Your task to perform on an android device: Open the calendar app, open the side menu, and click the "Day" option Image 0: 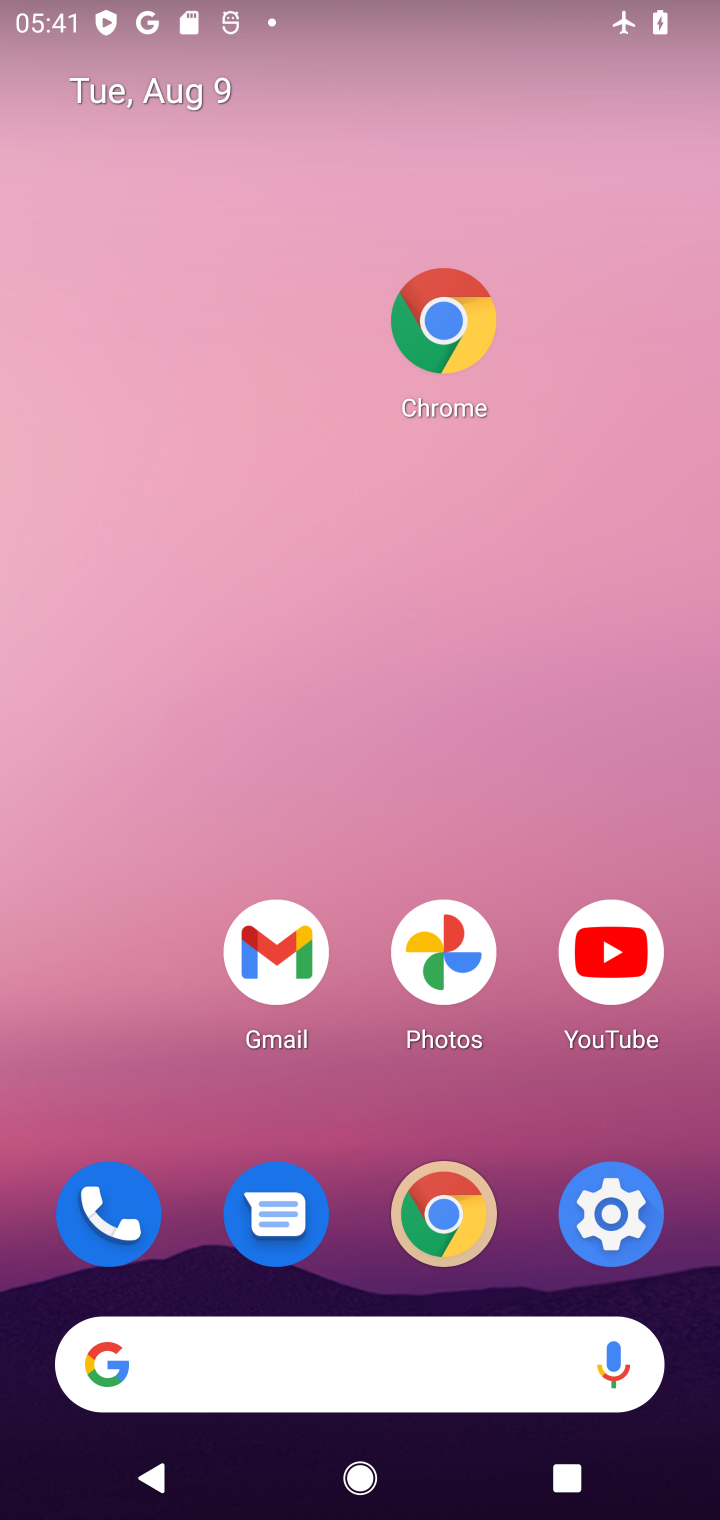
Step 0: drag from (501, 1269) to (326, 432)
Your task to perform on an android device: Open the calendar app, open the side menu, and click the "Day" option Image 1: 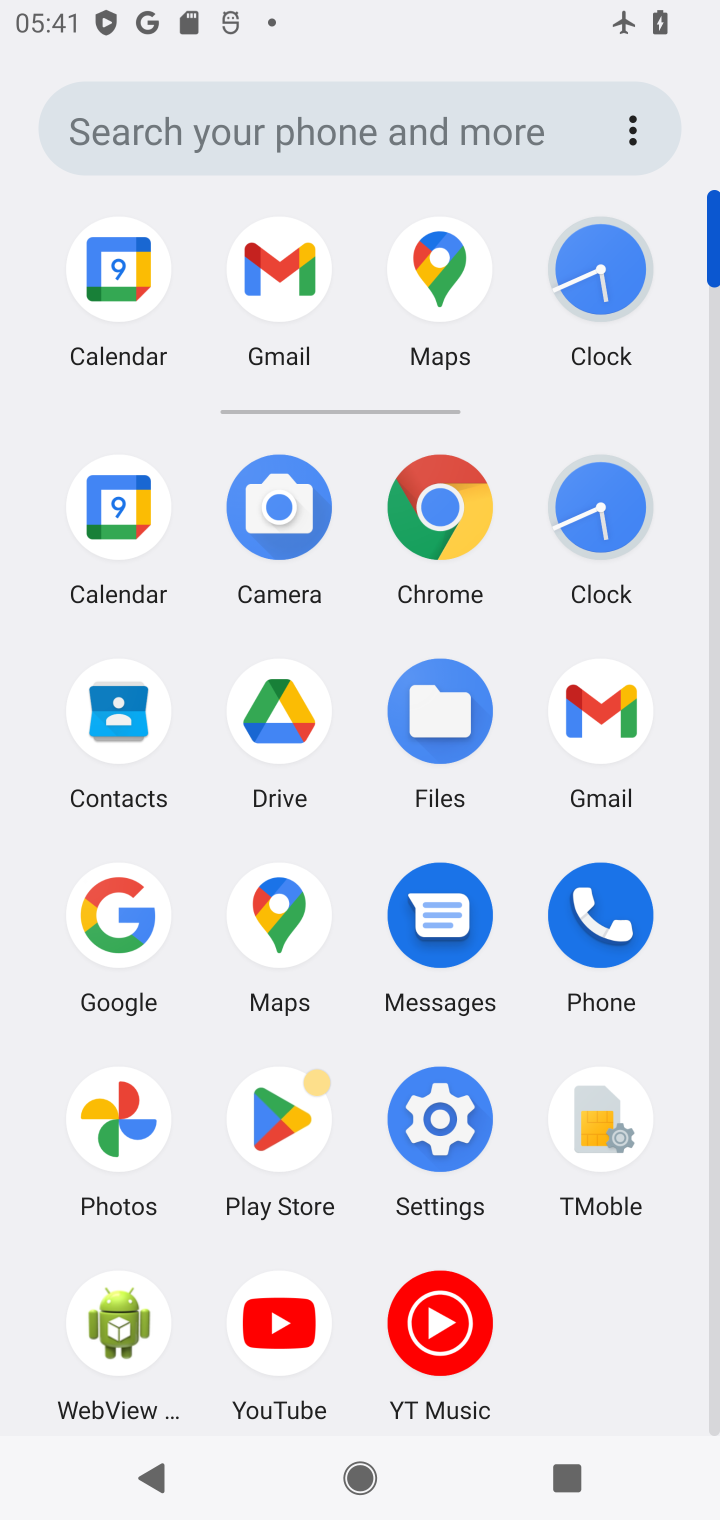
Step 1: click (129, 533)
Your task to perform on an android device: Open the calendar app, open the side menu, and click the "Day" option Image 2: 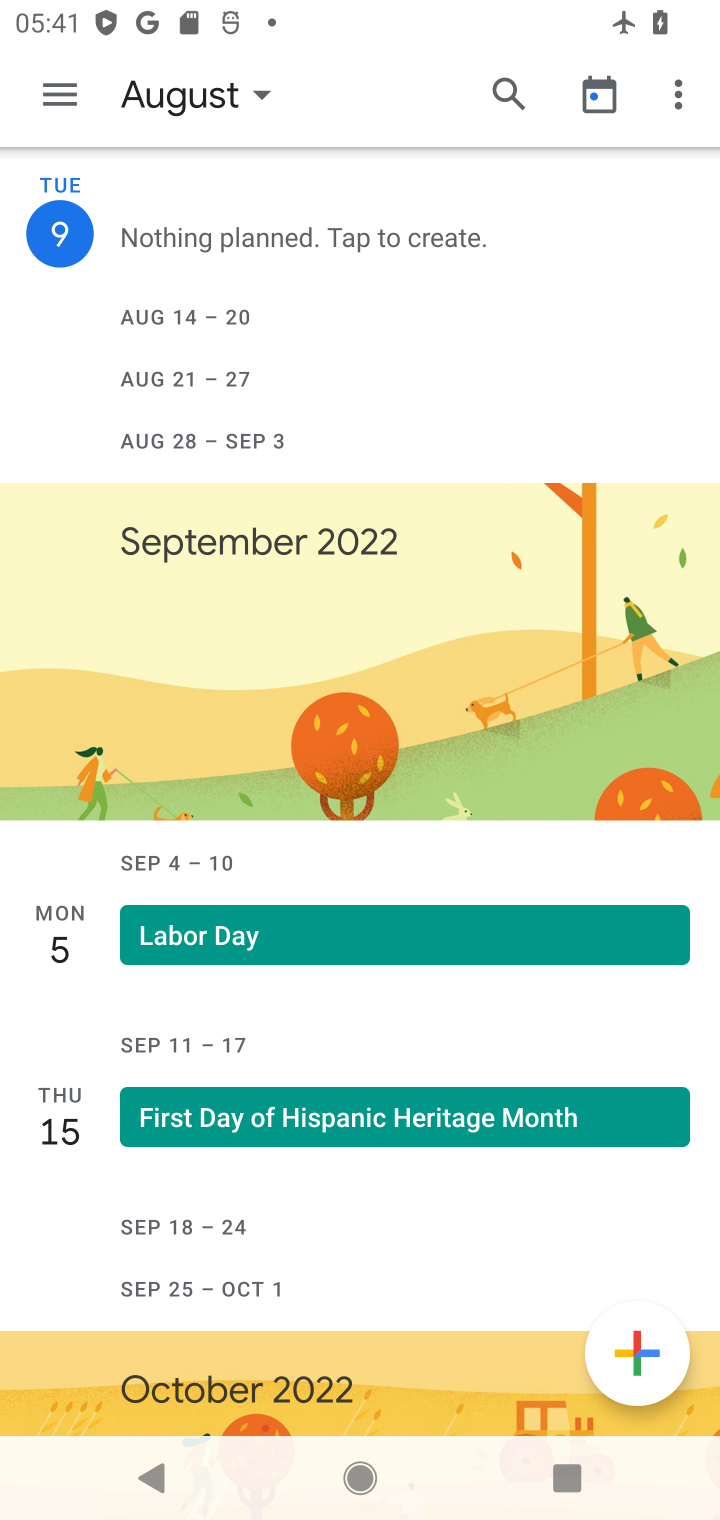
Step 2: click (64, 94)
Your task to perform on an android device: Open the calendar app, open the side menu, and click the "Day" option Image 3: 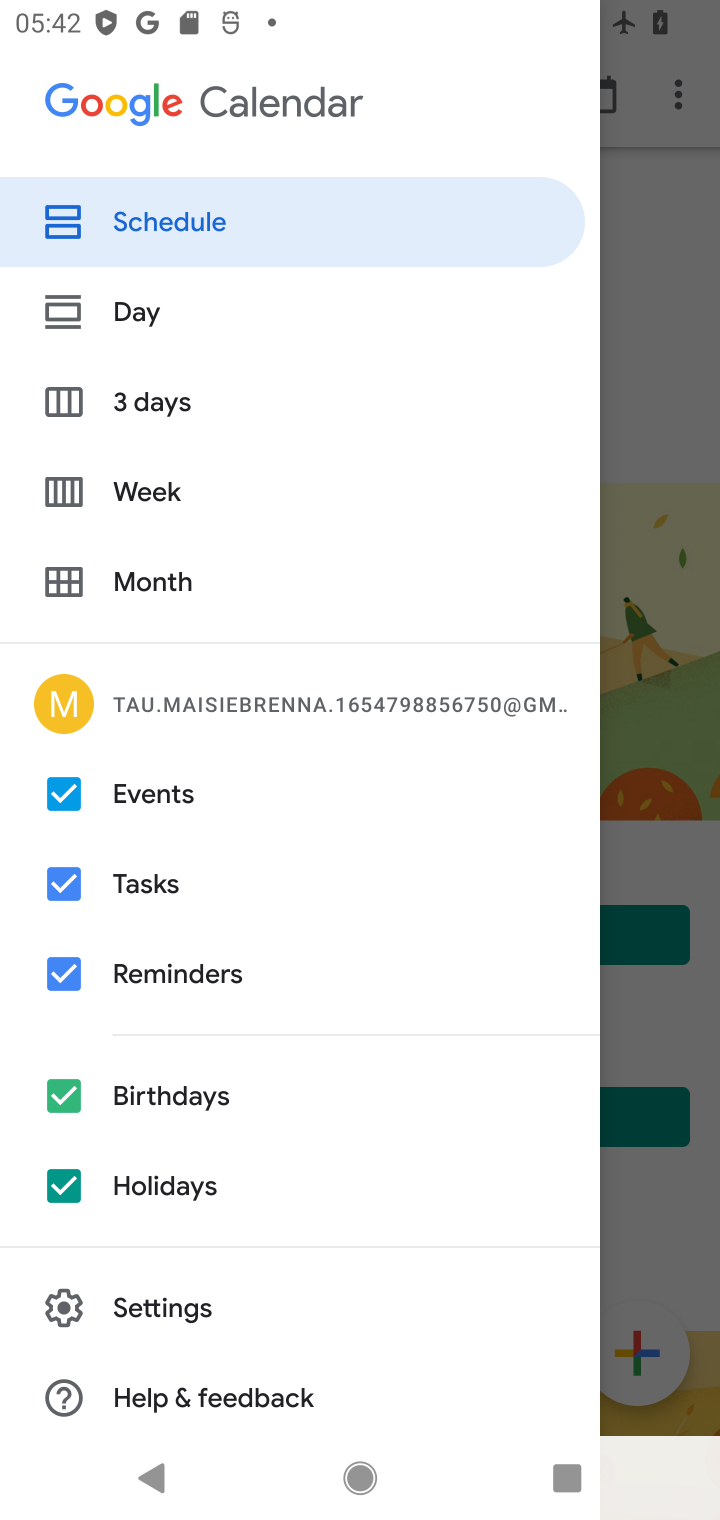
Step 3: click (151, 317)
Your task to perform on an android device: Open the calendar app, open the side menu, and click the "Day" option Image 4: 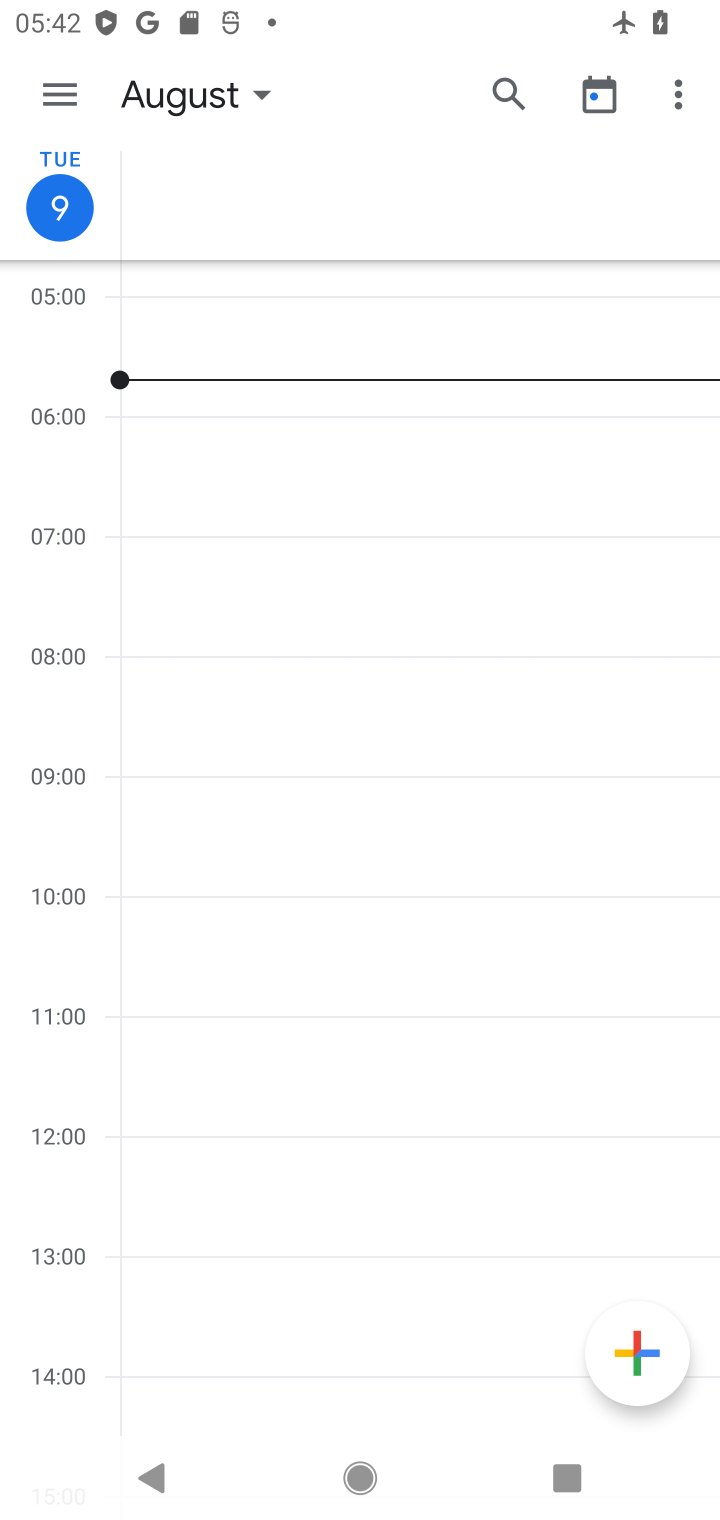
Step 4: click (68, 211)
Your task to perform on an android device: Open the calendar app, open the side menu, and click the "Day" option Image 5: 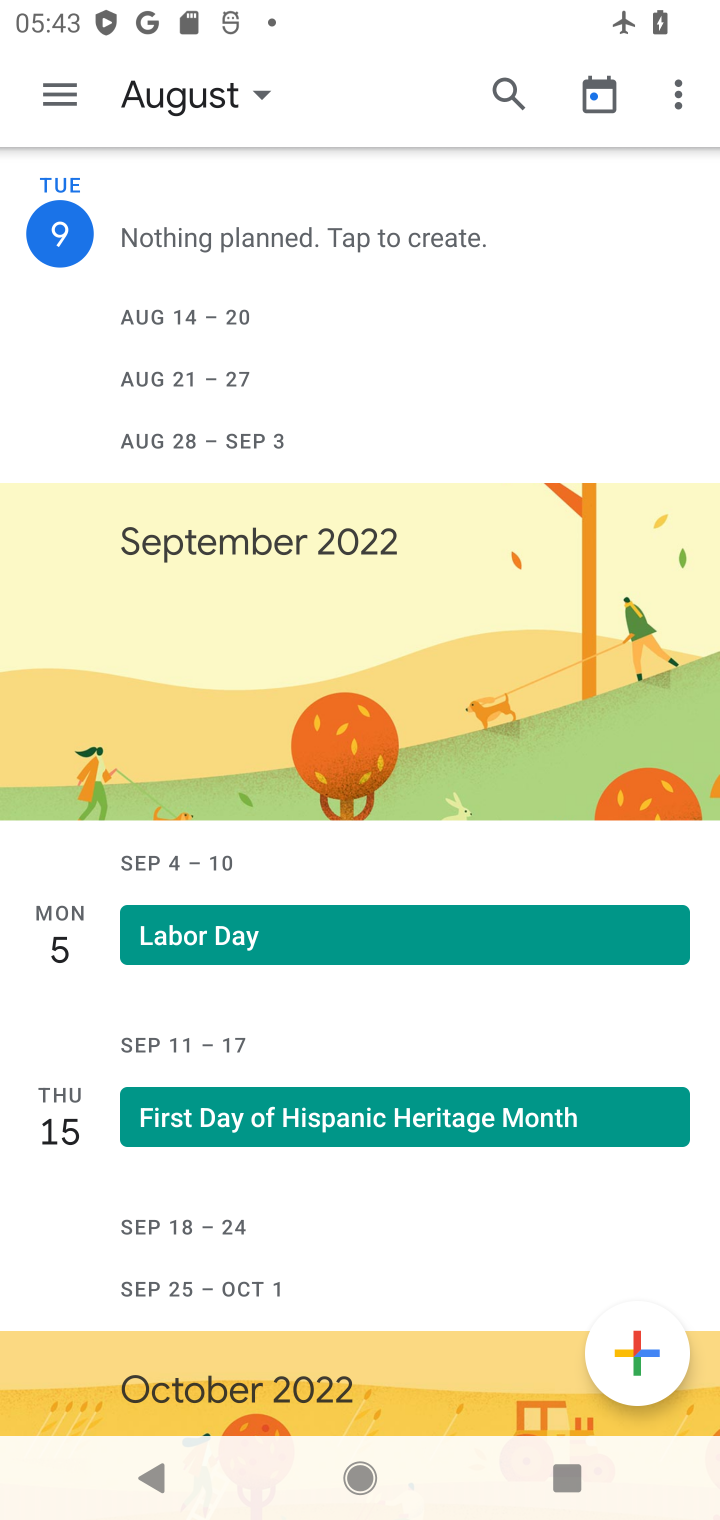
Step 5: task complete